Your task to perform on an android device: toggle translation in the chrome app Image 0: 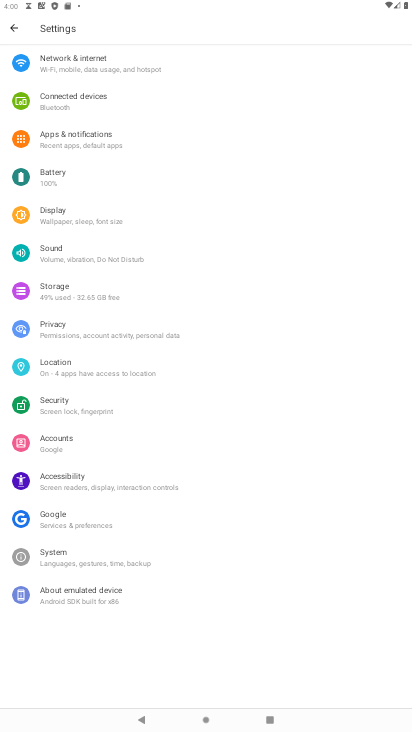
Step 0: press home button
Your task to perform on an android device: toggle translation in the chrome app Image 1: 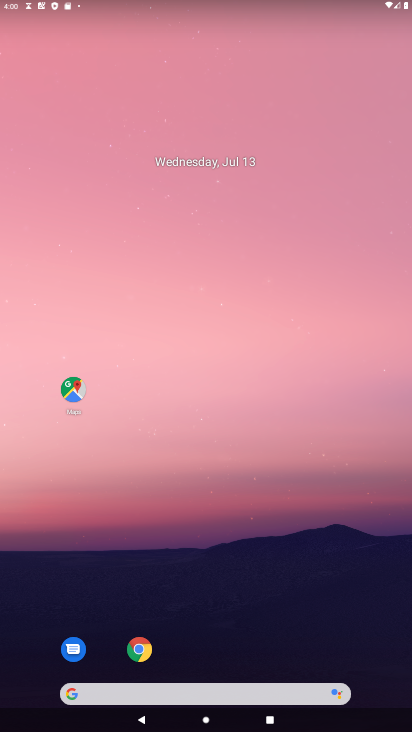
Step 1: click (130, 650)
Your task to perform on an android device: toggle translation in the chrome app Image 2: 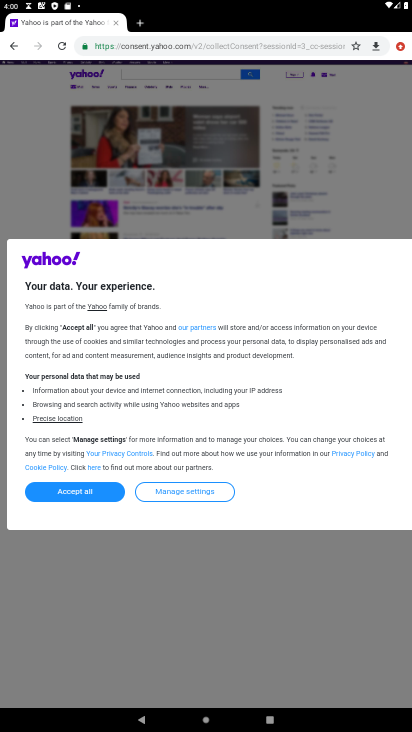
Step 2: click (401, 45)
Your task to perform on an android device: toggle translation in the chrome app Image 3: 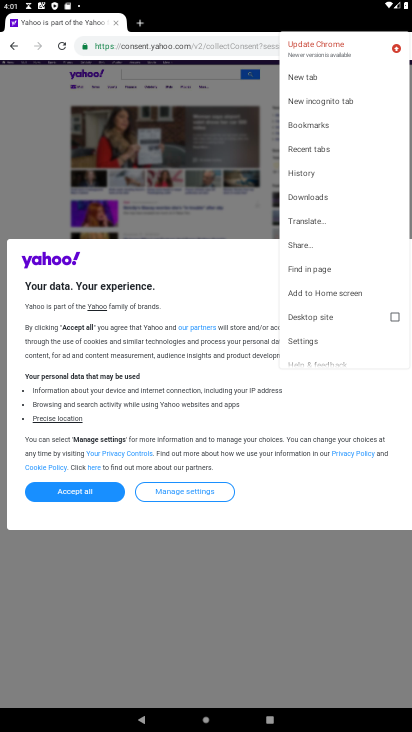
Step 3: click (309, 338)
Your task to perform on an android device: toggle translation in the chrome app Image 4: 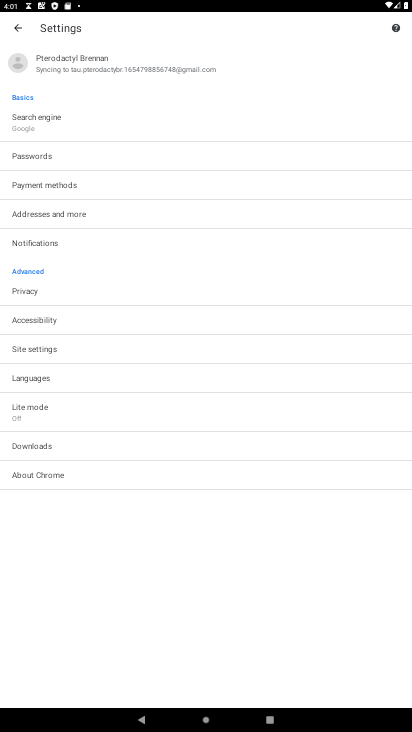
Step 4: click (40, 378)
Your task to perform on an android device: toggle translation in the chrome app Image 5: 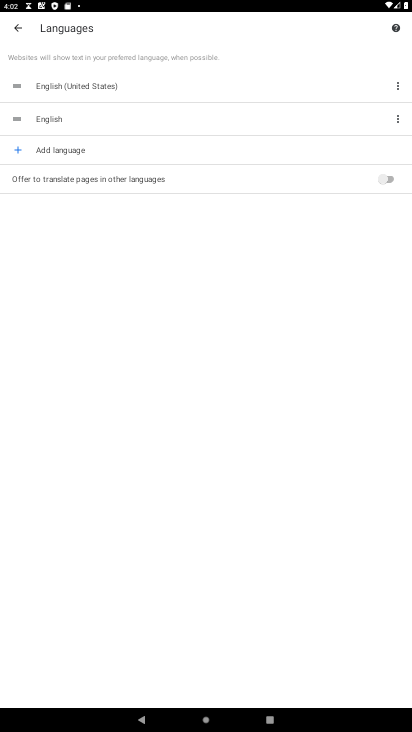
Step 5: click (391, 174)
Your task to perform on an android device: toggle translation in the chrome app Image 6: 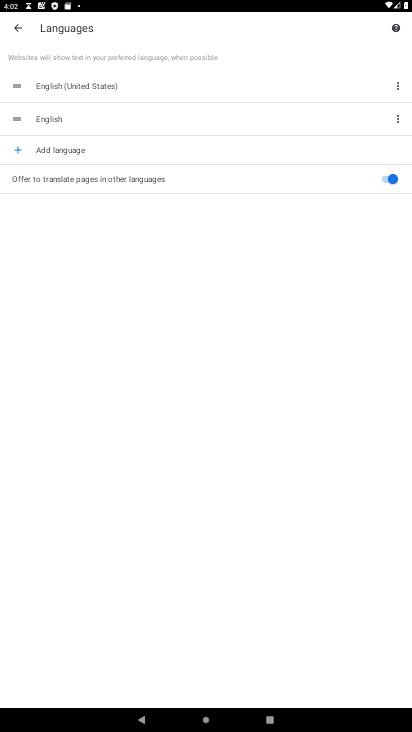
Step 6: task complete